Your task to perform on an android device: When is my next appointment? Image 0: 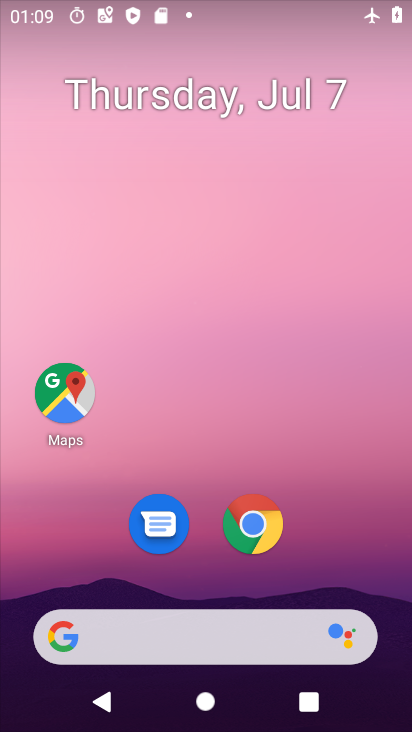
Step 0: drag from (191, 430) to (221, 14)
Your task to perform on an android device: When is my next appointment? Image 1: 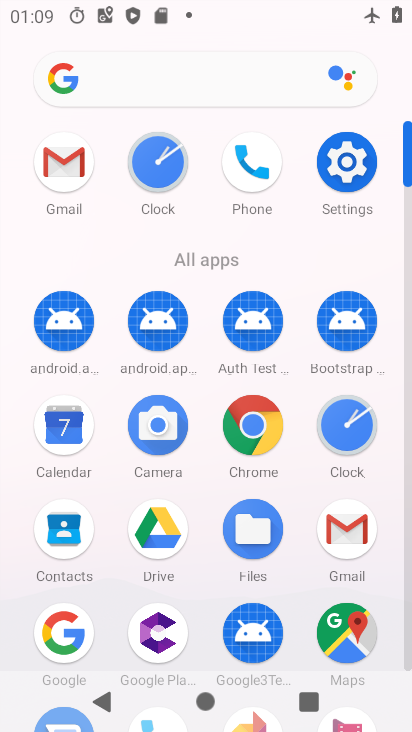
Step 1: click (60, 431)
Your task to perform on an android device: When is my next appointment? Image 2: 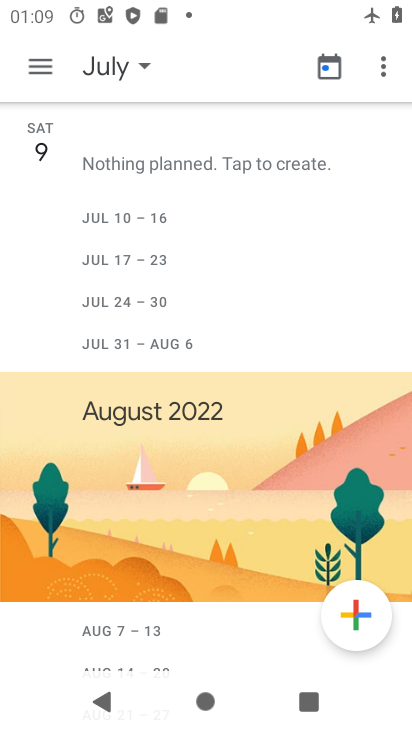
Step 2: task complete